Your task to perform on an android device: allow notifications from all sites in the chrome app Image 0: 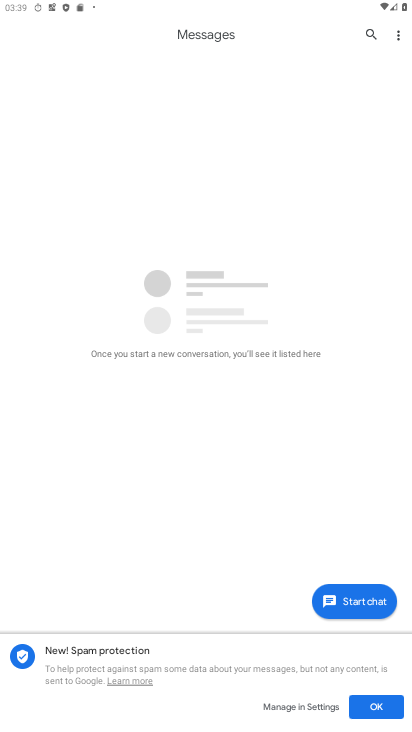
Step 0: press home button
Your task to perform on an android device: allow notifications from all sites in the chrome app Image 1: 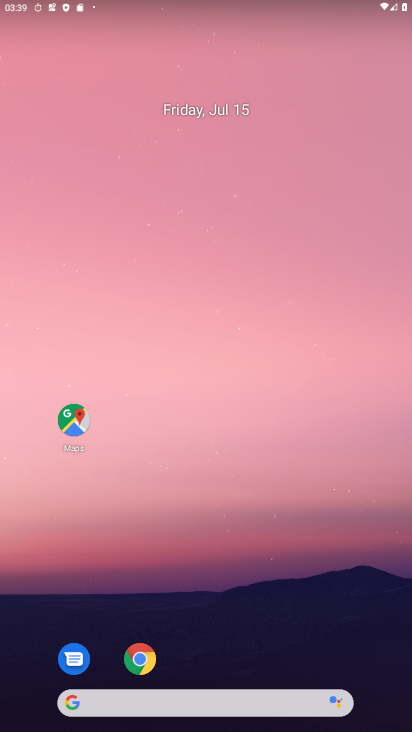
Step 1: click (142, 658)
Your task to perform on an android device: allow notifications from all sites in the chrome app Image 2: 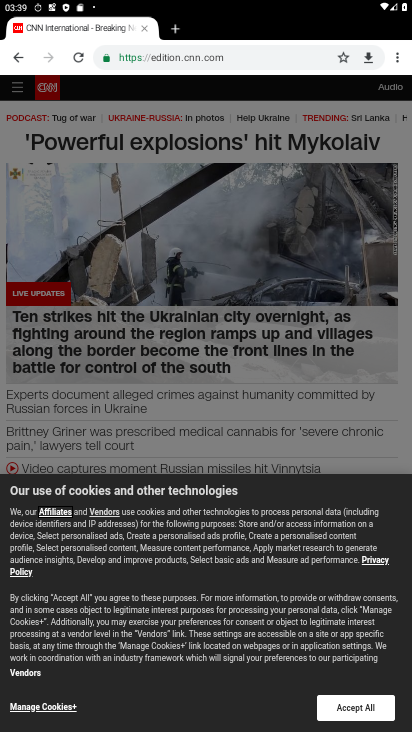
Step 2: click (399, 58)
Your task to perform on an android device: allow notifications from all sites in the chrome app Image 3: 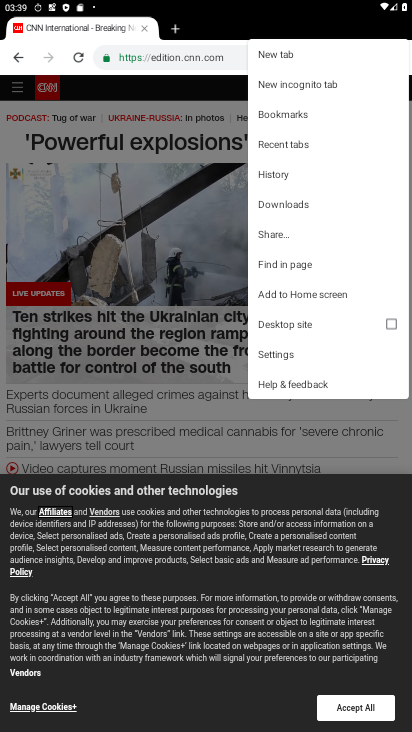
Step 3: click (283, 354)
Your task to perform on an android device: allow notifications from all sites in the chrome app Image 4: 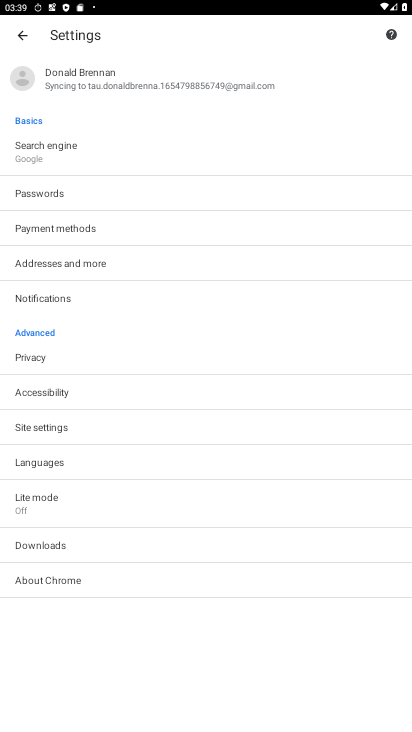
Step 4: click (64, 296)
Your task to perform on an android device: allow notifications from all sites in the chrome app Image 5: 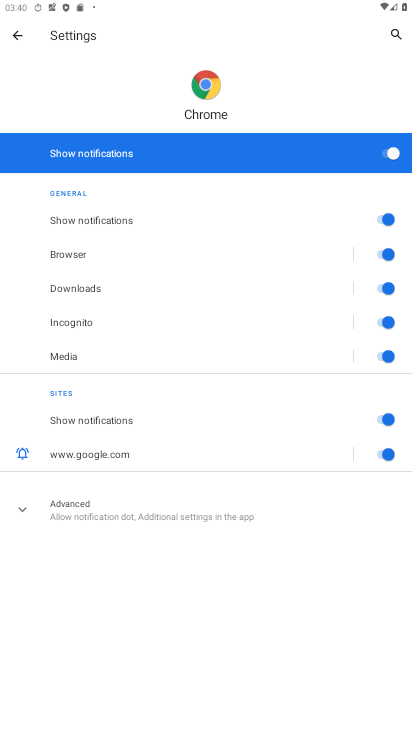
Step 5: task complete